Your task to perform on an android device: toggle notifications settings in the gmail app Image 0: 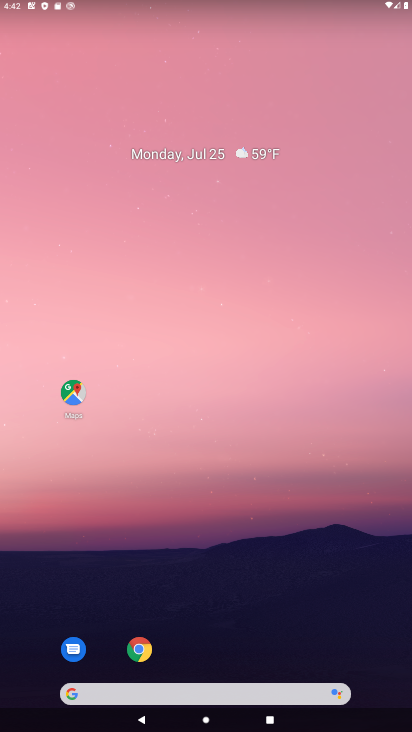
Step 0: drag from (316, 602) to (229, 17)
Your task to perform on an android device: toggle notifications settings in the gmail app Image 1: 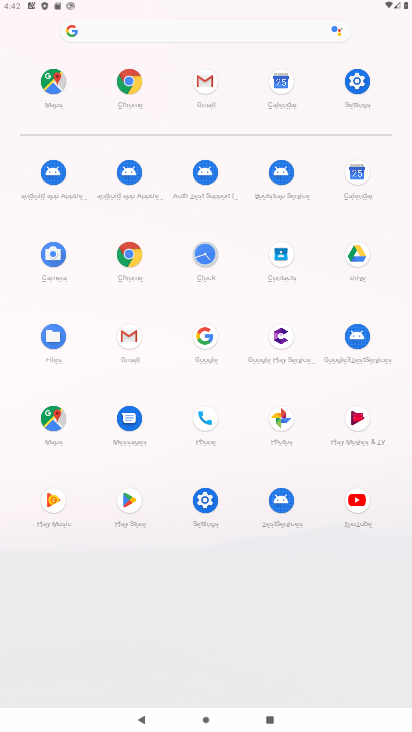
Step 1: click (351, 76)
Your task to perform on an android device: toggle notifications settings in the gmail app Image 2: 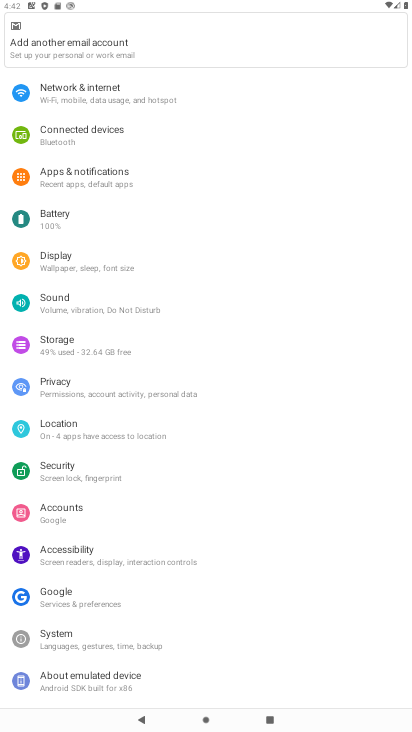
Step 2: click (108, 185)
Your task to perform on an android device: toggle notifications settings in the gmail app Image 3: 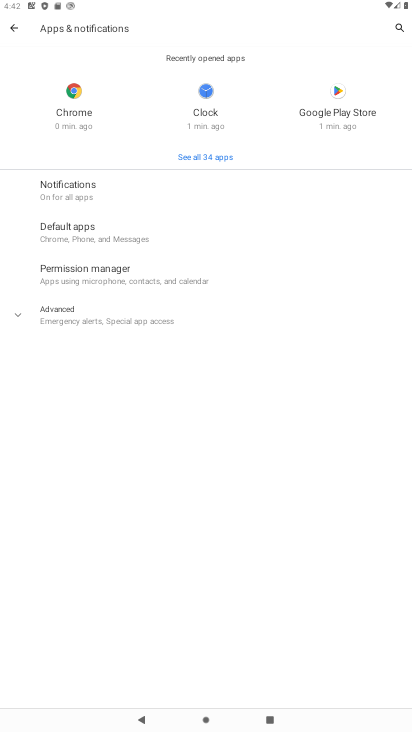
Step 3: click (92, 189)
Your task to perform on an android device: toggle notifications settings in the gmail app Image 4: 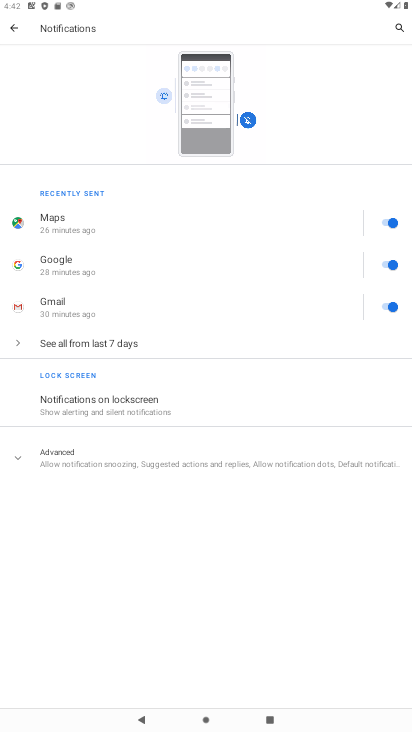
Step 4: click (106, 459)
Your task to perform on an android device: toggle notifications settings in the gmail app Image 5: 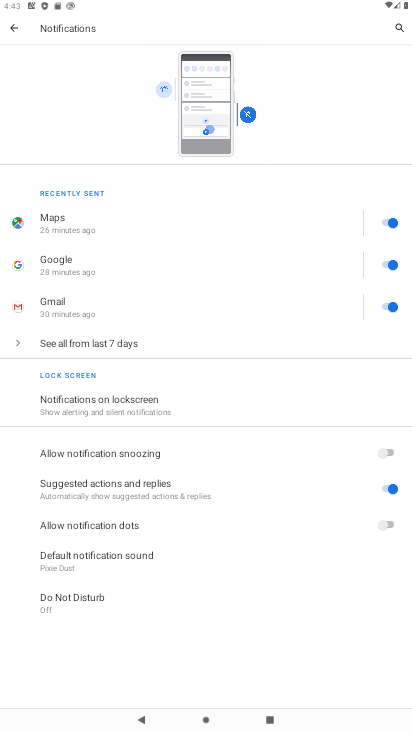
Step 5: task complete